Your task to perform on an android device: turn on the 24-hour format for clock Image 0: 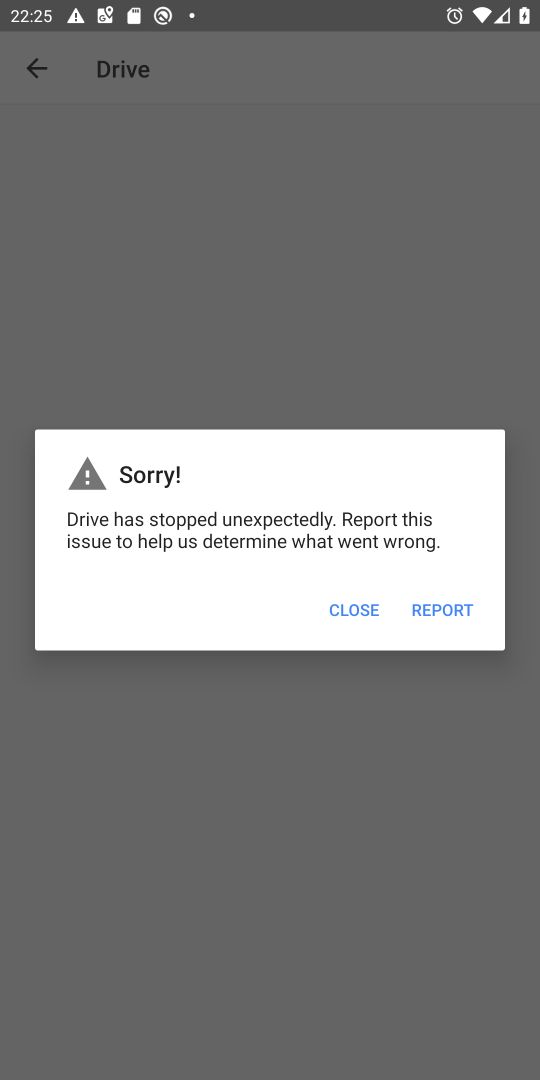
Step 0: press home button
Your task to perform on an android device: turn on the 24-hour format for clock Image 1: 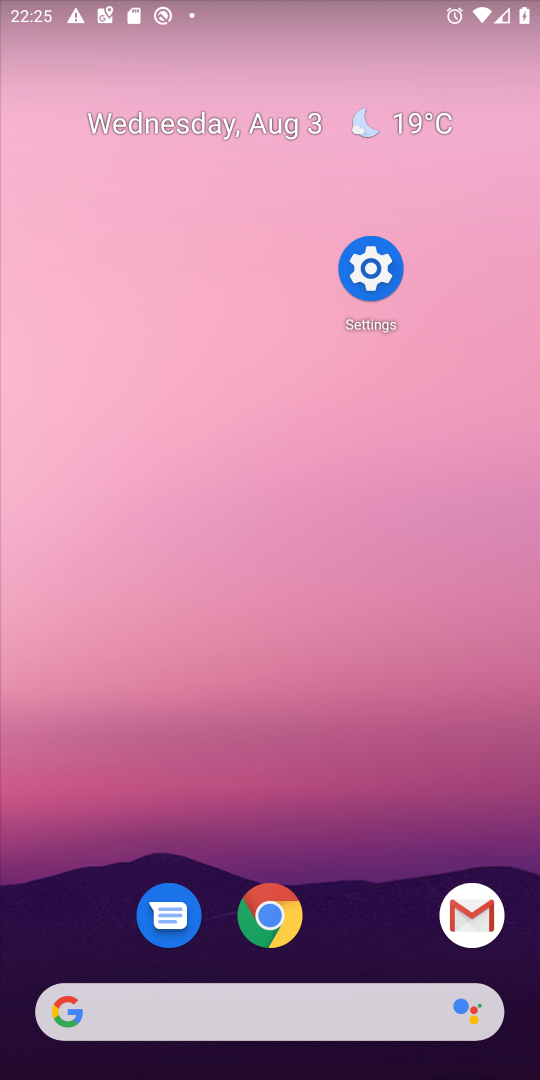
Step 1: drag from (309, 1038) to (173, 230)
Your task to perform on an android device: turn on the 24-hour format for clock Image 2: 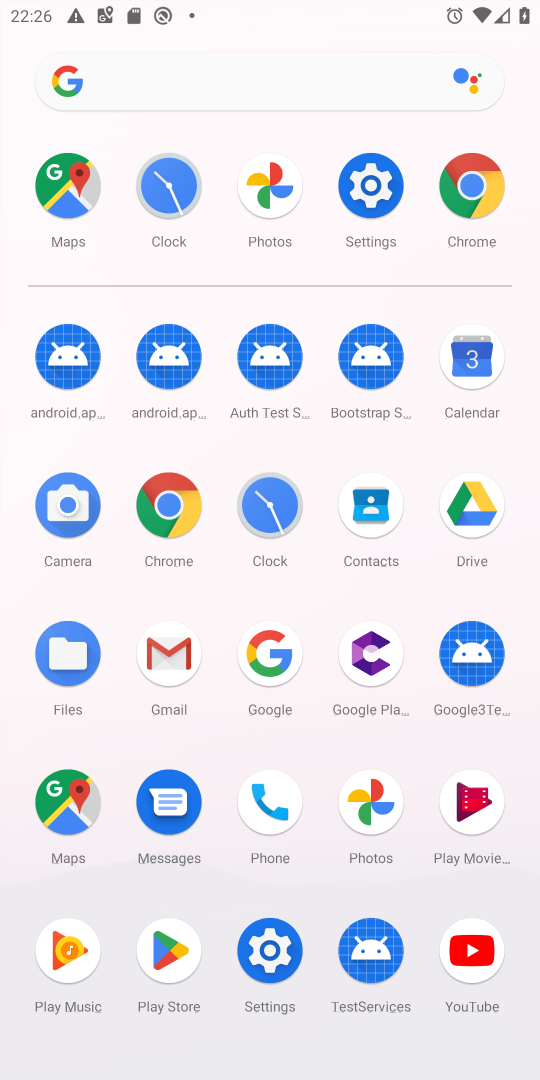
Step 2: click (261, 513)
Your task to perform on an android device: turn on the 24-hour format for clock Image 3: 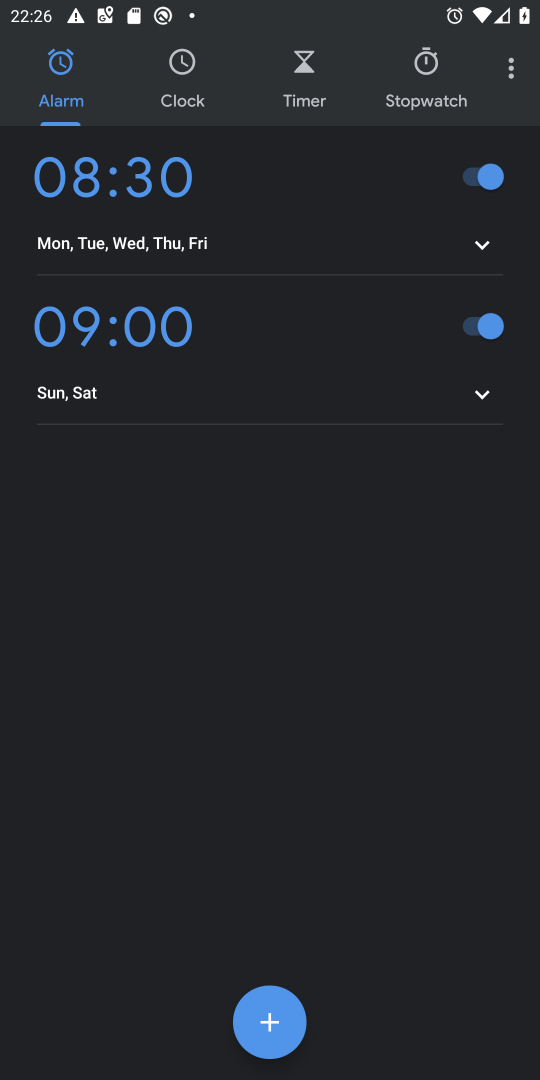
Step 3: click (507, 99)
Your task to perform on an android device: turn on the 24-hour format for clock Image 4: 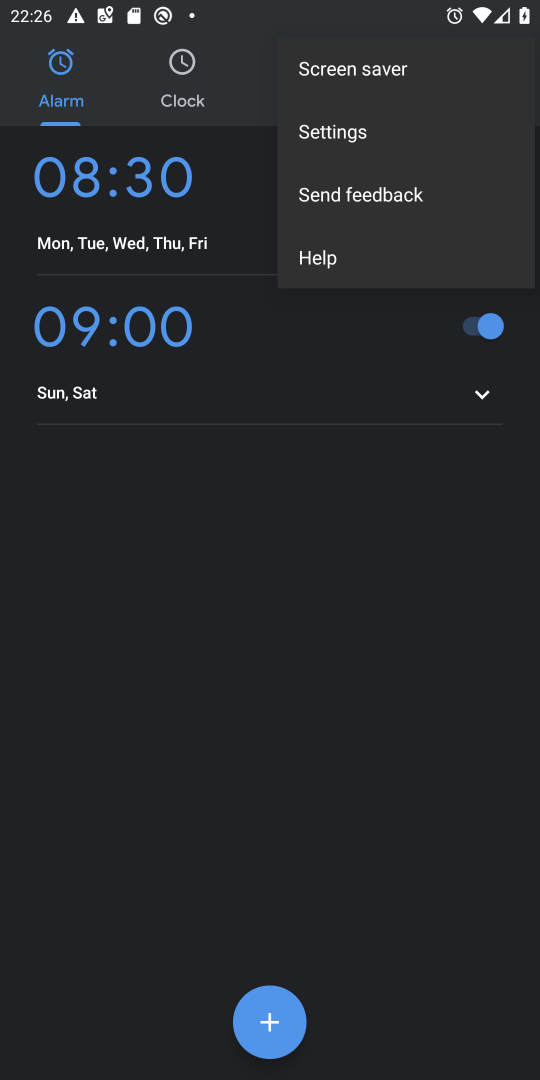
Step 4: click (360, 124)
Your task to perform on an android device: turn on the 24-hour format for clock Image 5: 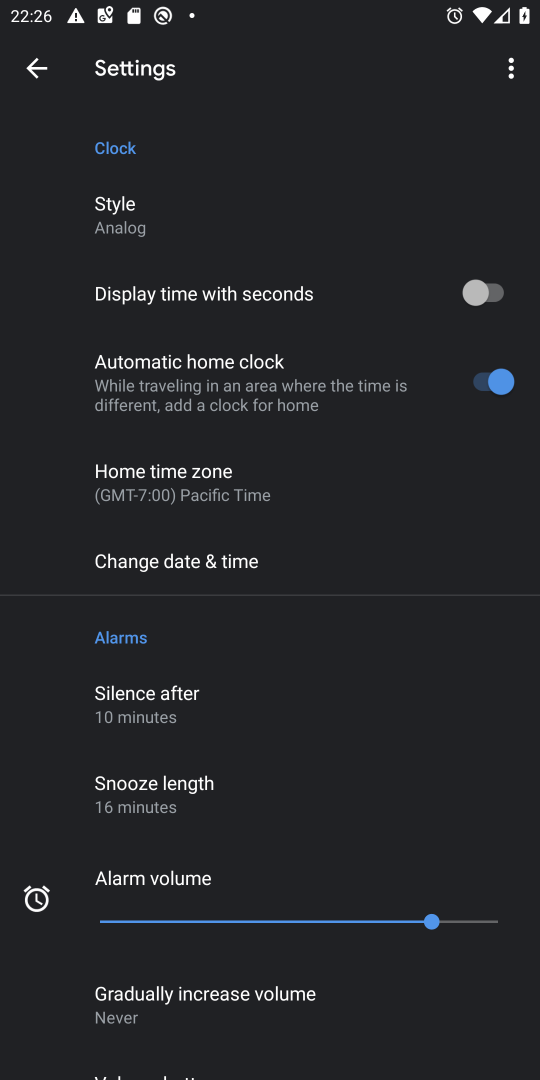
Step 5: click (240, 563)
Your task to perform on an android device: turn on the 24-hour format for clock Image 6: 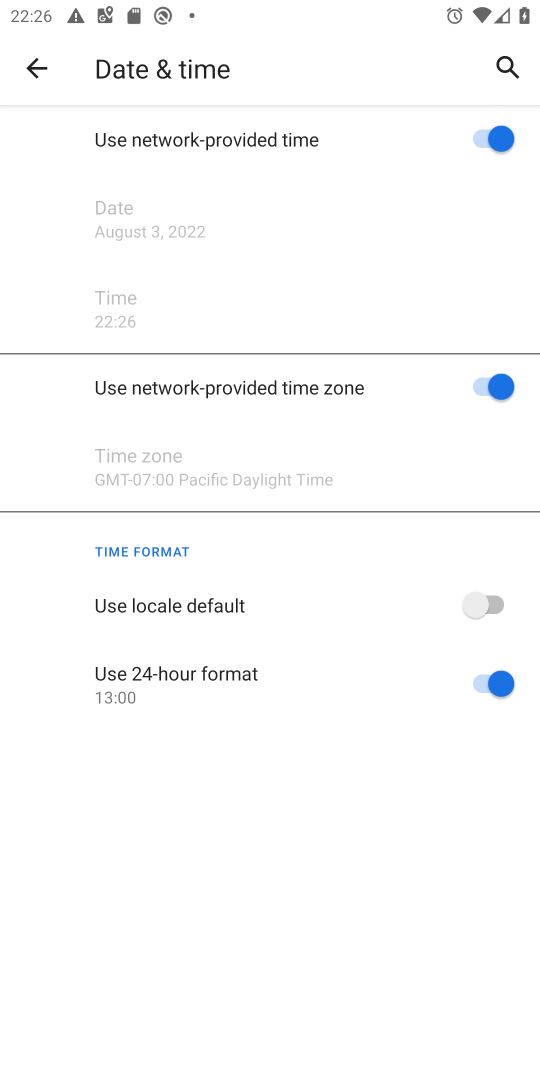
Step 6: click (506, 683)
Your task to perform on an android device: turn on the 24-hour format for clock Image 7: 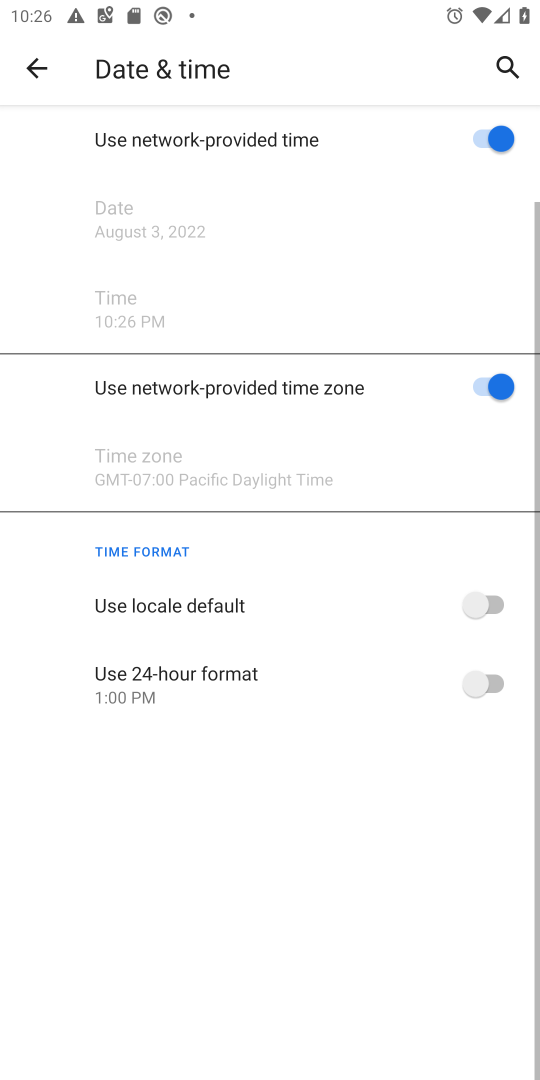
Step 7: click (506, 683)
Your task to perform on an android device: turn on the 24-hour format for clock Image 8: 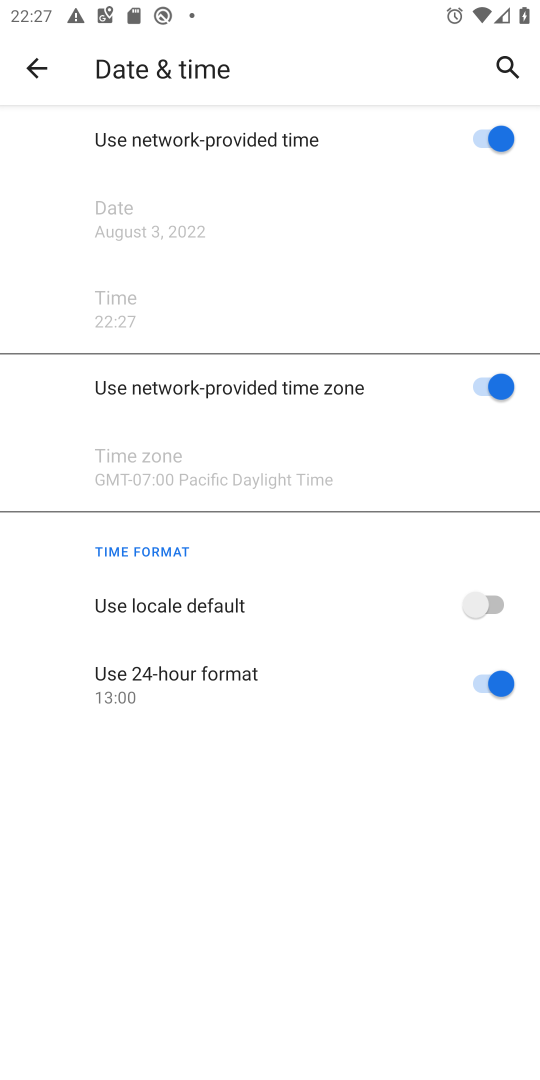
Step 8: task complete